Your task to perform on an android device: Go to CNN.com Image 0: 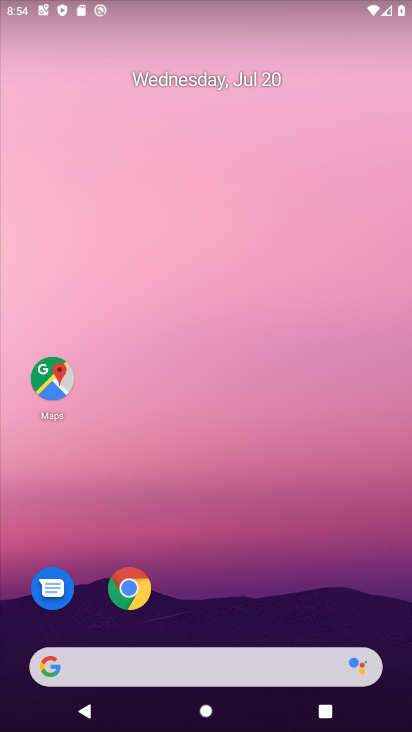
Step 0: click (141, 669)
Your task to perform on an android device: Go to CNN.com Image 1: 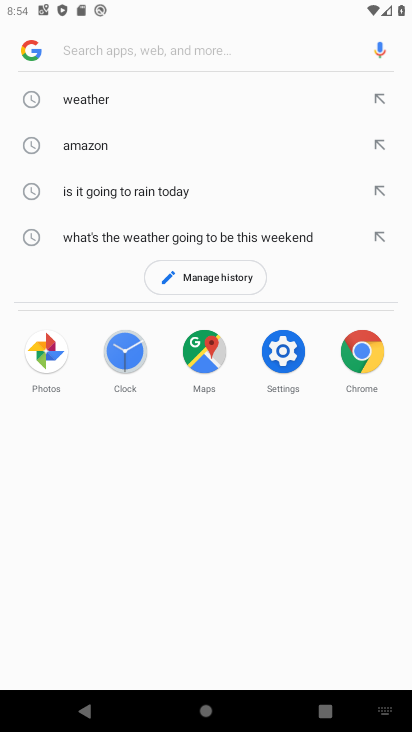
Step 1: type "cnn.com"
Your task to perform on an android device: Go to CNN.com Image 2: 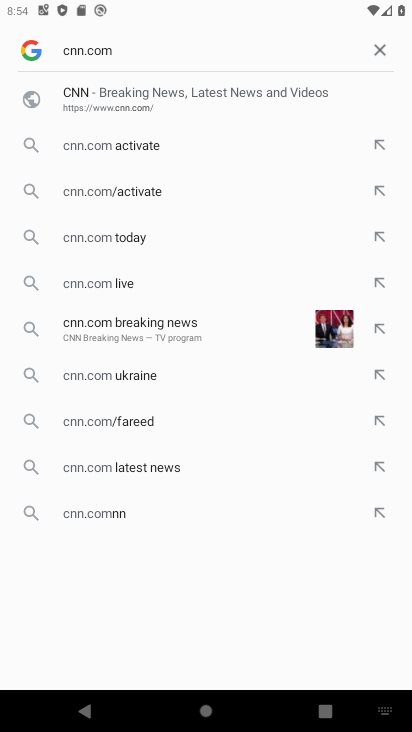
Step 2: click (220, 106)
Your task to perform on an android device: Go to CNN.com Image 3: 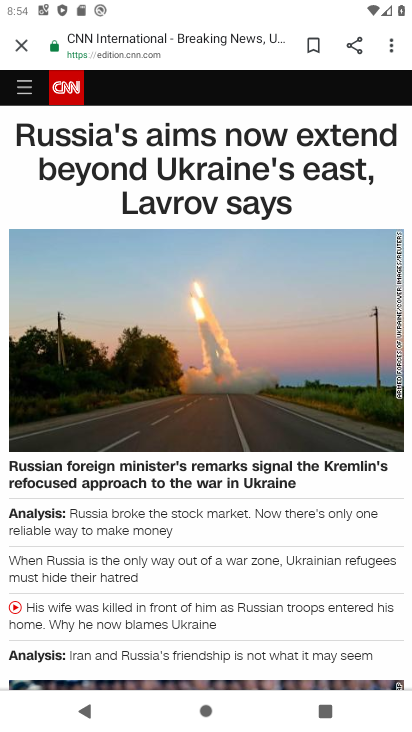
Step 3: task complete